Your task to perform on an android device: see tabs open on other devices in the chrome app Image 0: 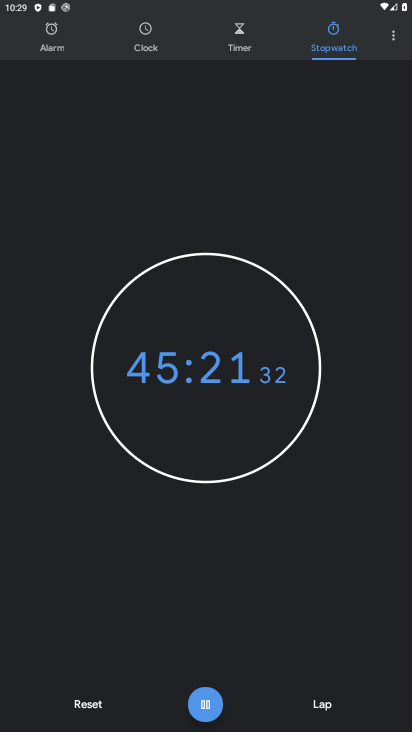
Step 0: press back button
Your task to perform on an android device: see tabs open on other devices in the chrome app Image 1: 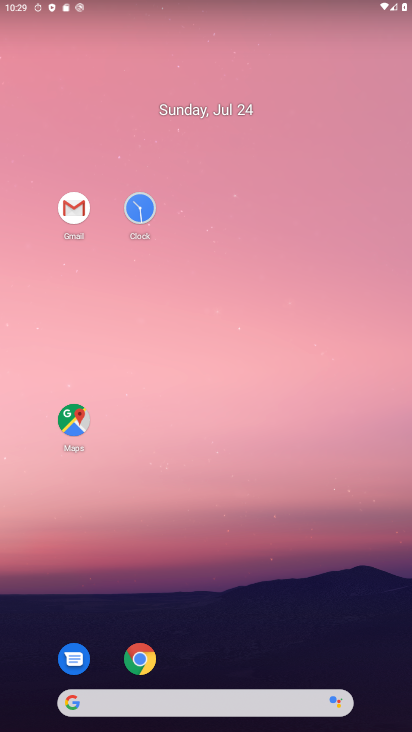
Step 1: click (147, 664)
Your task to perform on an android device: see tabs open on other devices in the chrome app Image 2: 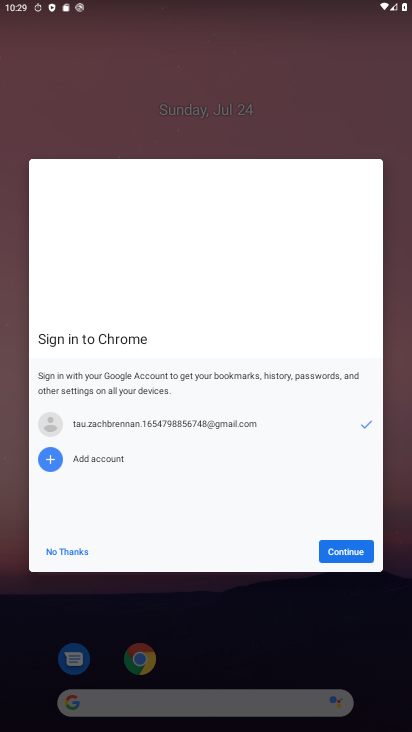
Step 2: click (357, 558)
Your task to perform on an android device: see tabs open on other devices in the chrome app Image 3: 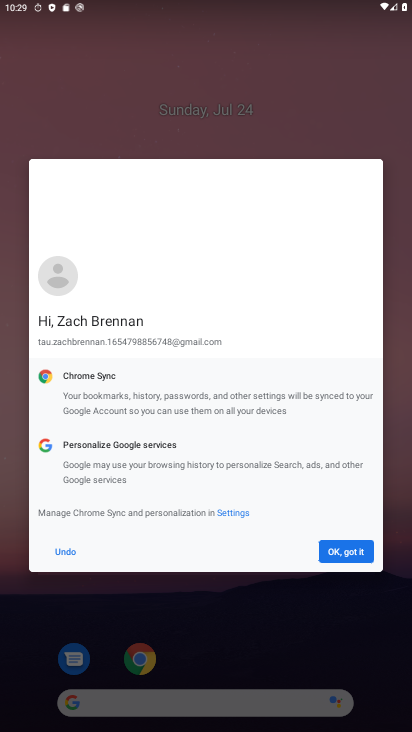
Step 3: click (357, 558)
Your task to perform on an android device: see tabs open on other devices in the chrome app Image 4: 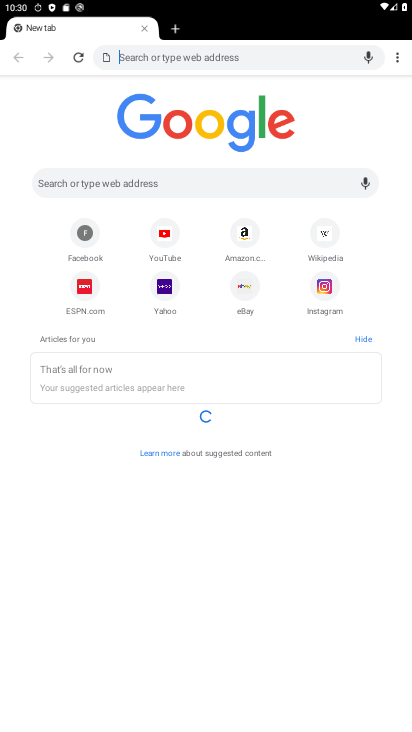
Step 4: click (402, 65)
Your task to perform on an android device: see tabs open on other devices in the chrome app Image 5: 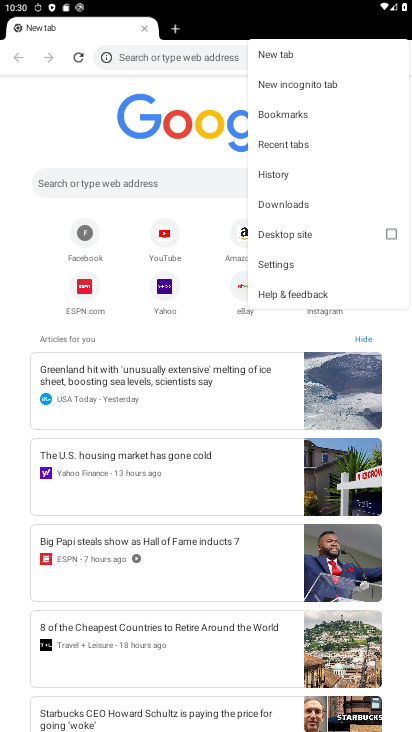
Step 5: click (278, 142)
Your task to perform on an android device: see tabs open on other devices in the chrome app Image 6: 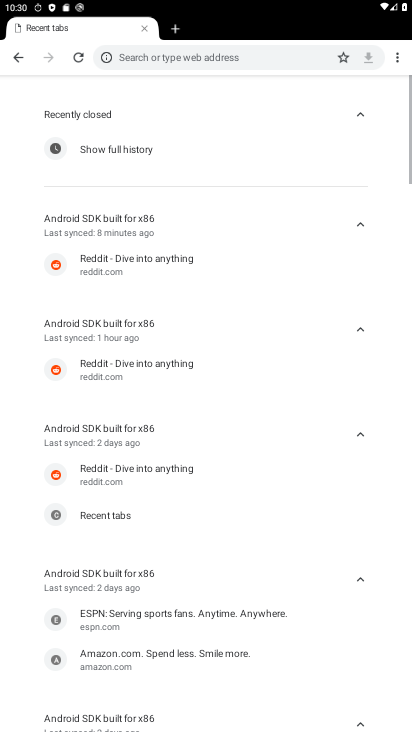
Step 6: task complete